Your task to perform on an android device: Open Reddit.com Image 0: 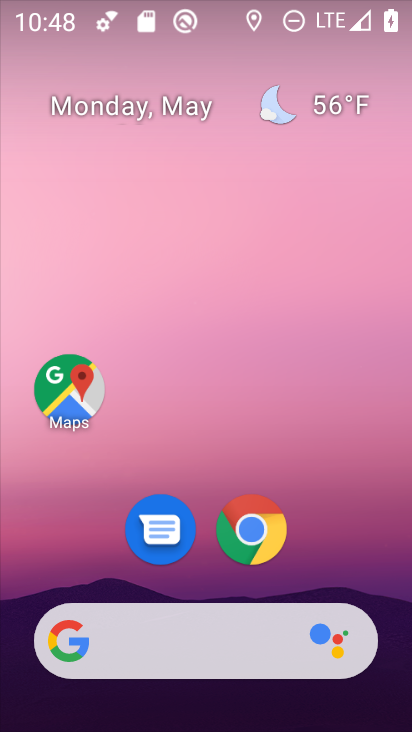
Step 0: click (279, 529)
Your task to perform on an android device: Open Reddit.com Image 1: 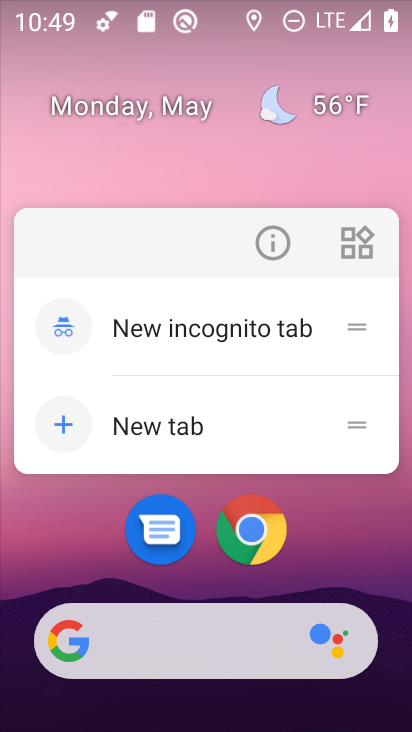
Step 1: click (254, 551)
Your task to perform on an android device: Open Reddit.com Image 2: 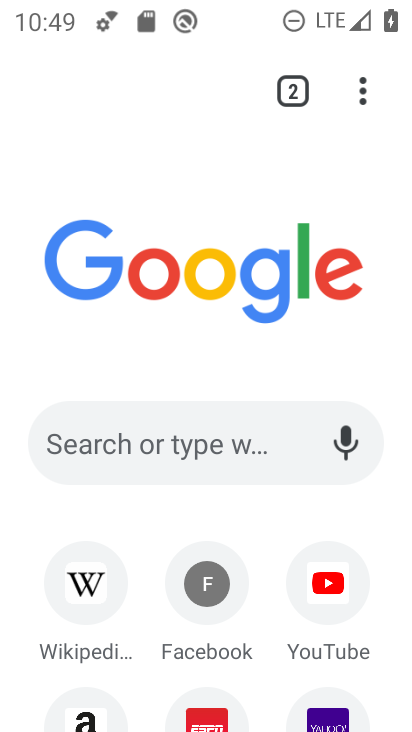
Step 2: click (162, 444)
Your task to perform on an android device: Open Reddit.com Image 3: 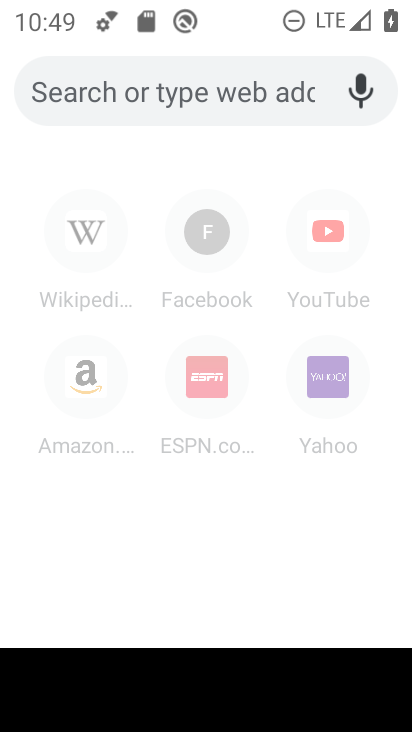
Step 3: type "reddit.com"
Your task to perform on an android device: Open Reddit.com Image 4: 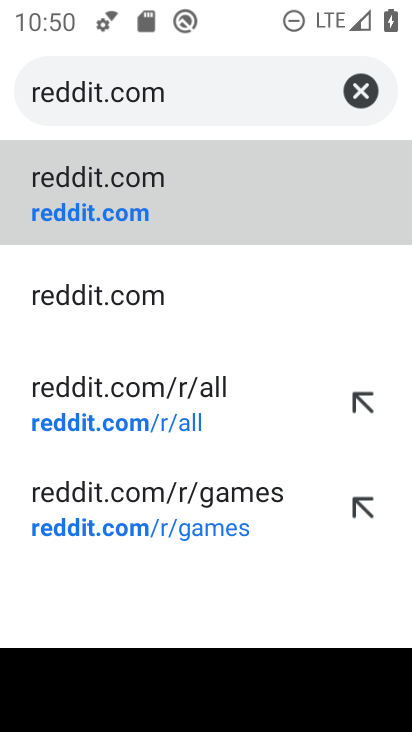
Step 4: click (338, 180)
Your task to perform on an android device: Open Reddit.com Image 5: 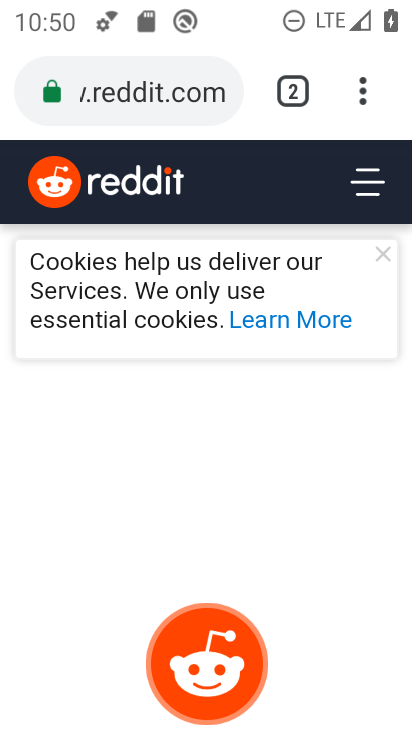
Step 5: task complete